Your task to perform on an android device: clear history in the chrome app Image 0: 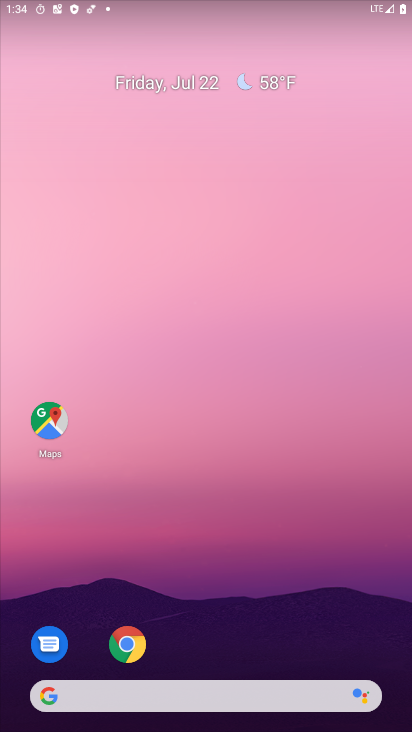
Step 0: drag from (160, 653) to (246, 168)
Your task to perform on an android device: clear history in the chrome app Image 1: 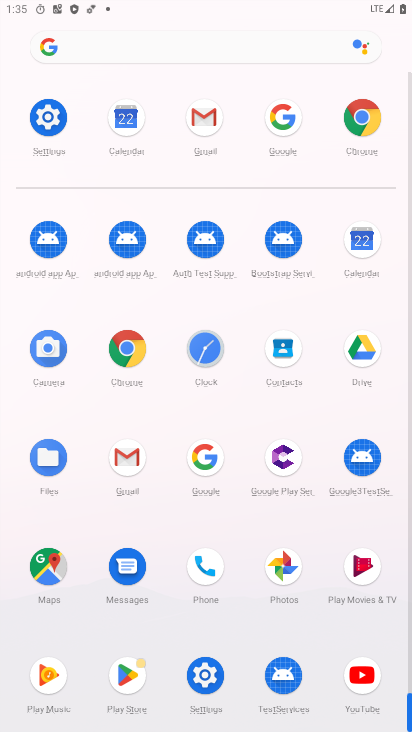
Step 1: click (117, 342)
Your task to perform on an android device: clear history in the chrome app Image 2: 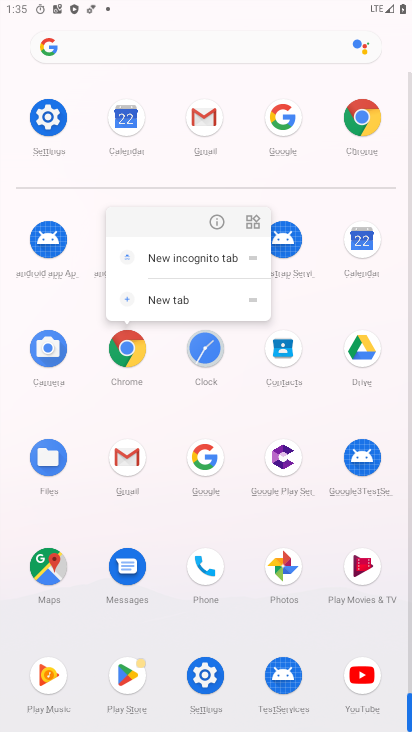
Step 2: click (220, 214)
Your task to perform on an android device: clear history in the chrome app Image 3: 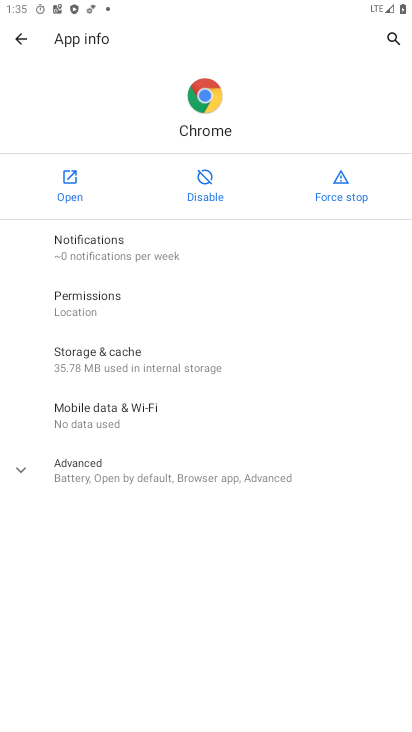
Step 3: click (74, 186)
Your task to perform on an android device: clear history in the chrome app Image 4: 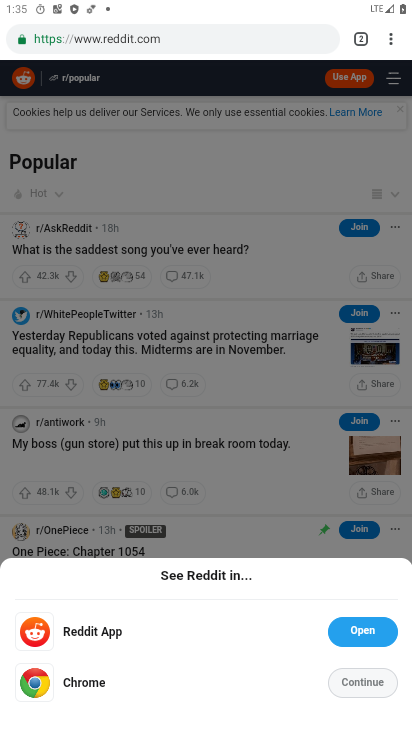
Step 4: drag from (388, 46) to (286, 272)
Your task to perform on an android device: clear history in the chrome app Image 5: 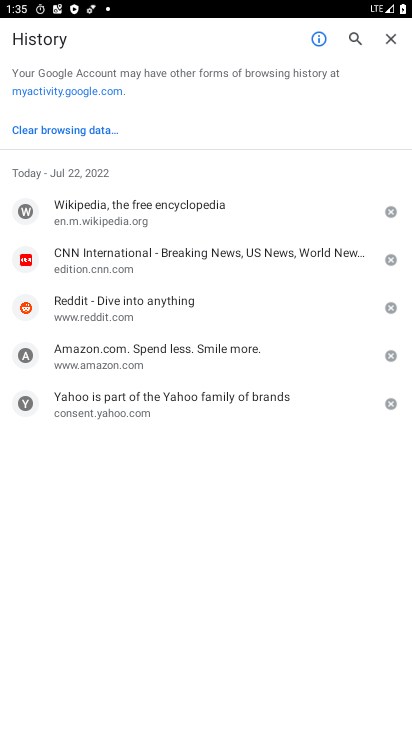
Step 5: click (75, 132)
Your task to perform on an android device: clear history in the chrome app Image 6: 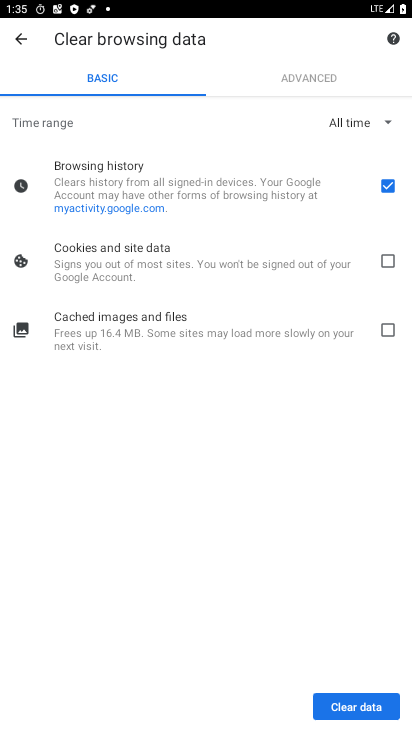
Step 6: click (338, 704)
Your task to perform on an android device: clear history in the chrome app Image 7: 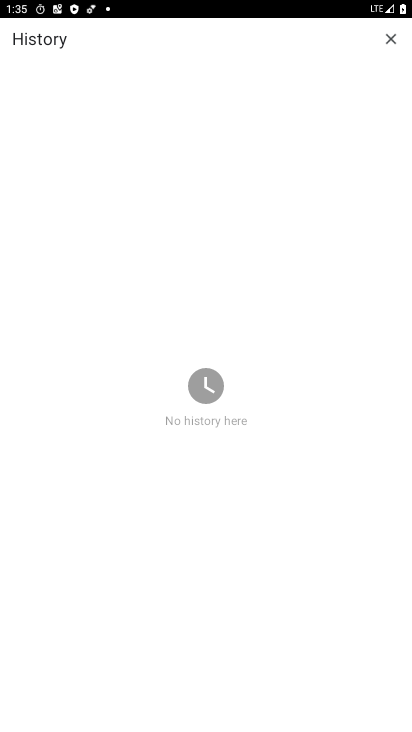
Step 7: task complete